Your task to perform on an android device: View the shopping cart on costco. Image 0: 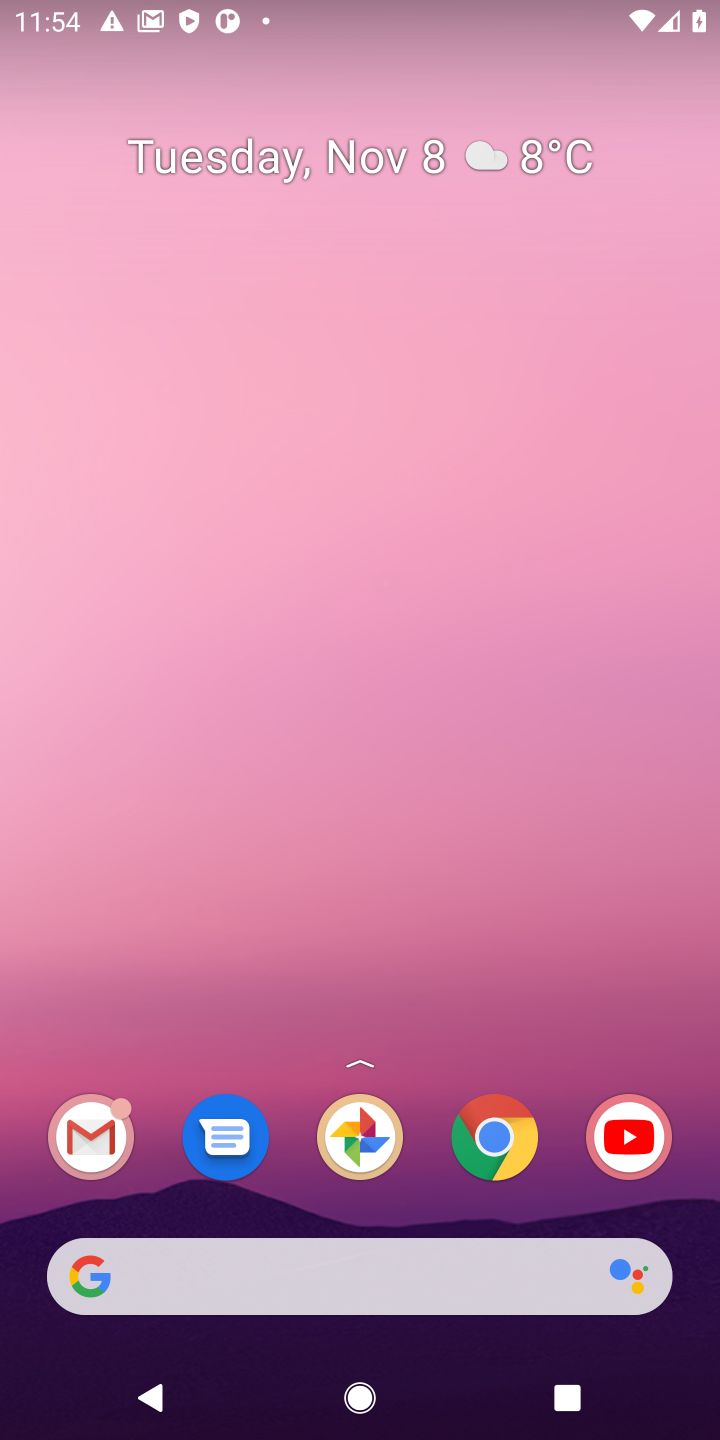
Step 0: click (482, 1136)
Your task to perform on an android device: View the shopping cart on costco. Image 1: 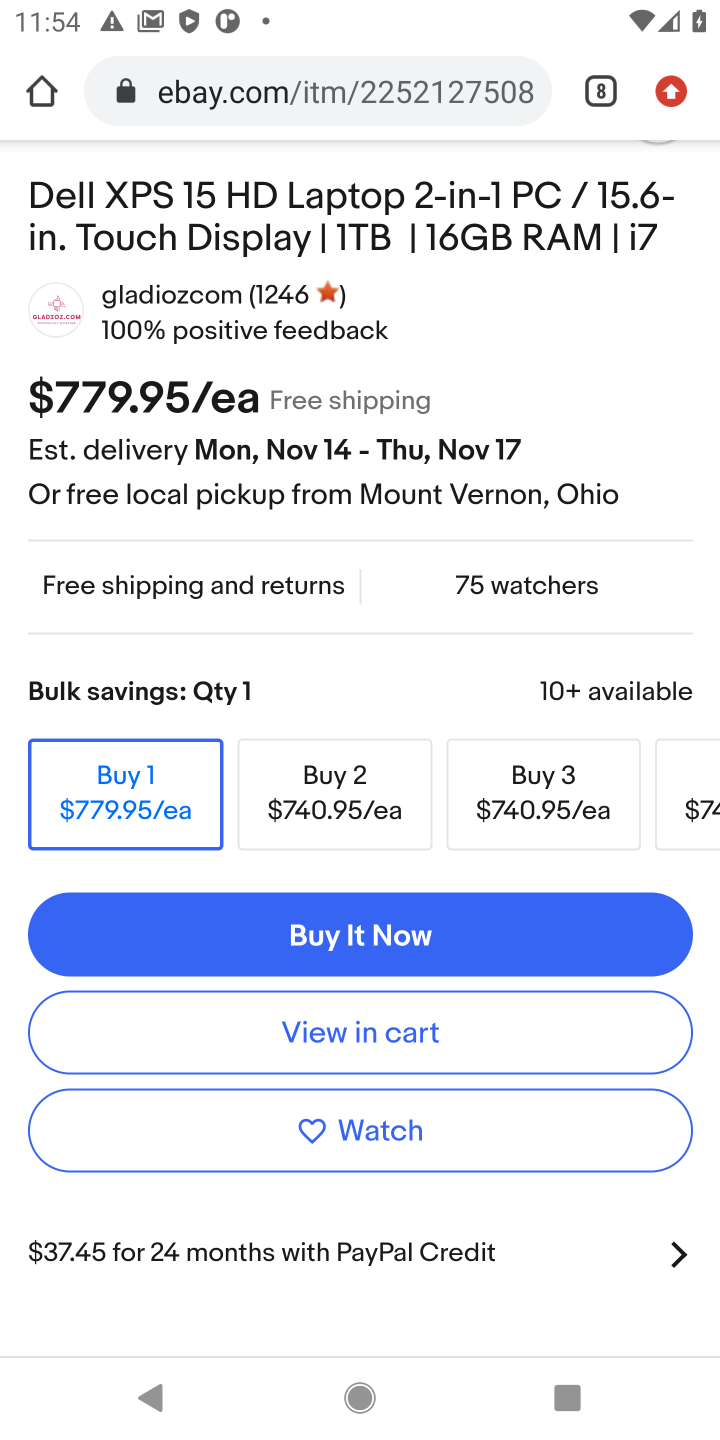
Step 1: drag from (439, 127) to (319, 1288)
Your task to perform on an android device: View the shopping cart on costco. Image 2: 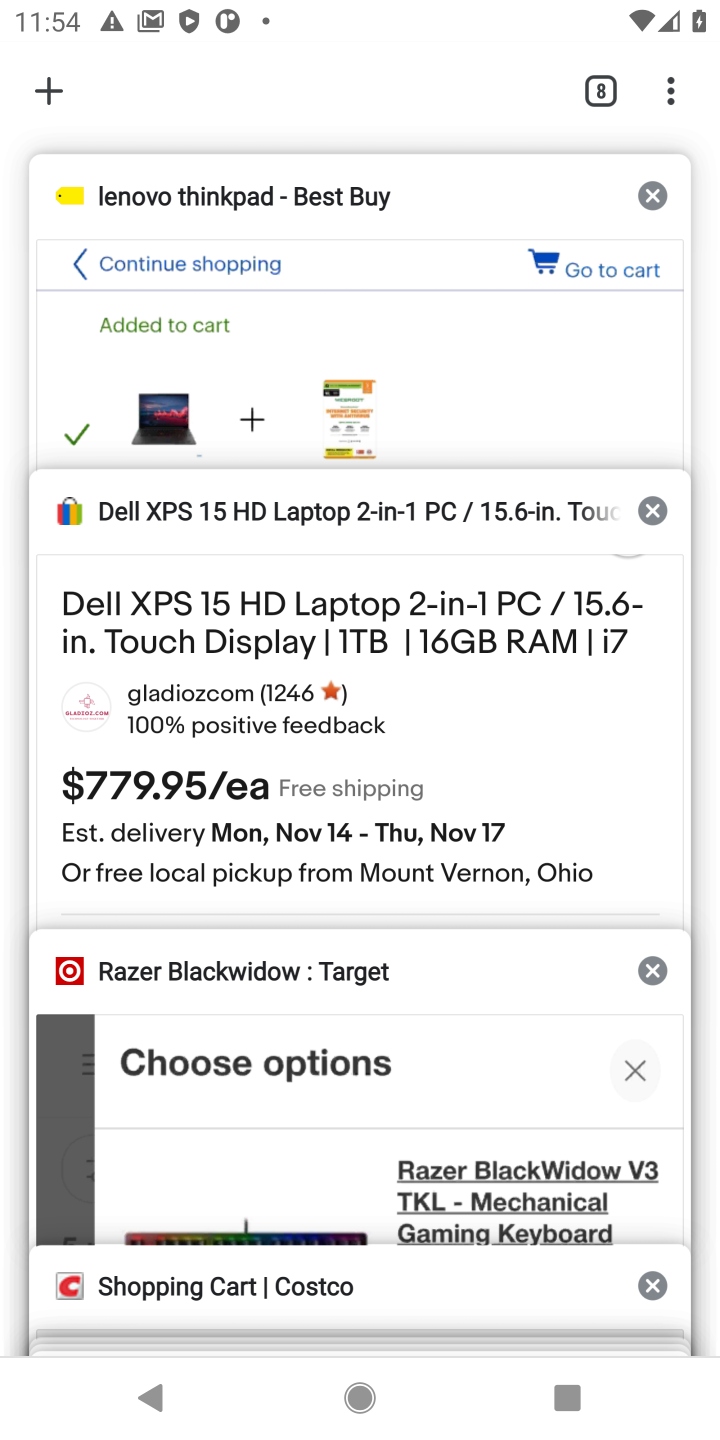
Step 2: click (601, 86)
Your task to perform on an android device: View the shopping cart on costco. Image 3: 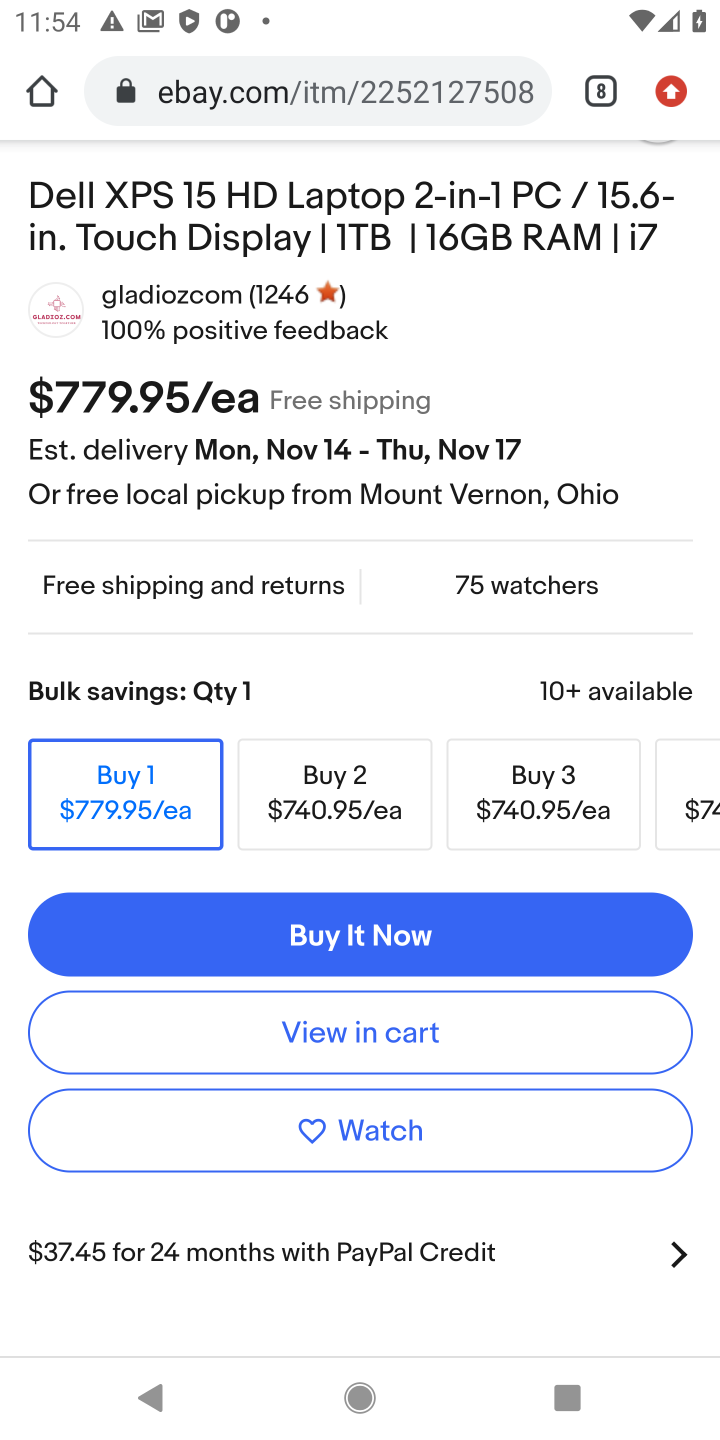
Step 3: click (601, 86)
Your task to perform on an android device: View the shopping cart on costco. Image 4: 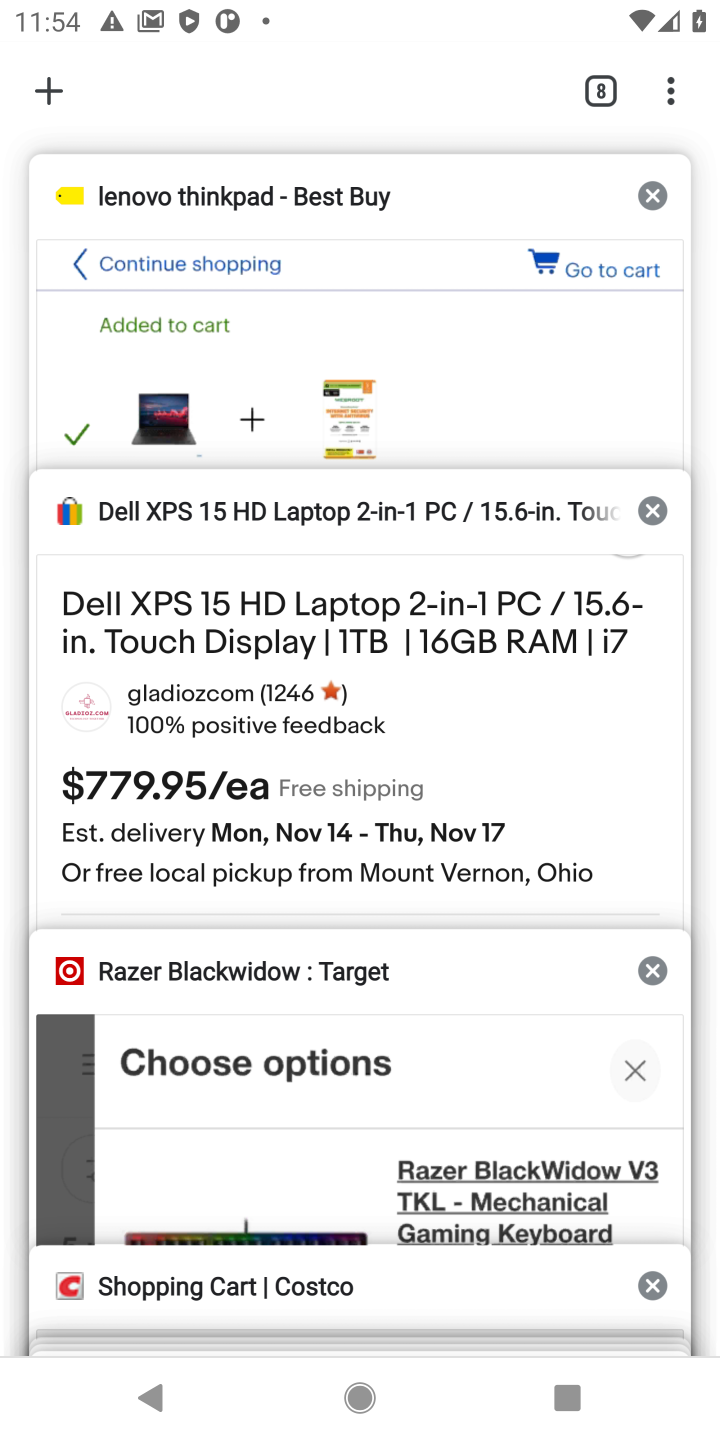
Step 4: click (353, 1276)
Your task to perform on an android device: View the shopping cart on costco. Image 5: 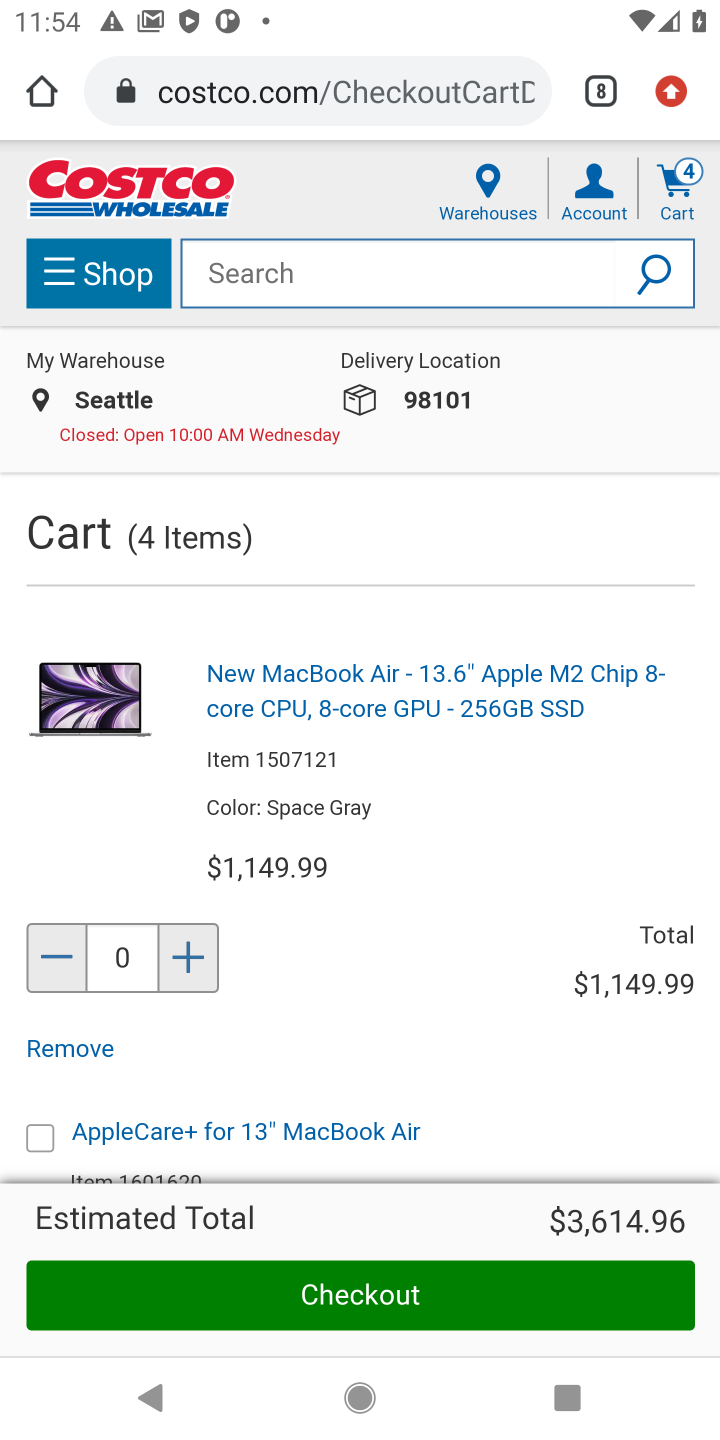
Step 5: task complete